Your task to perform on an android device: read, delete, or share a saved page in the chrome app Image 0: 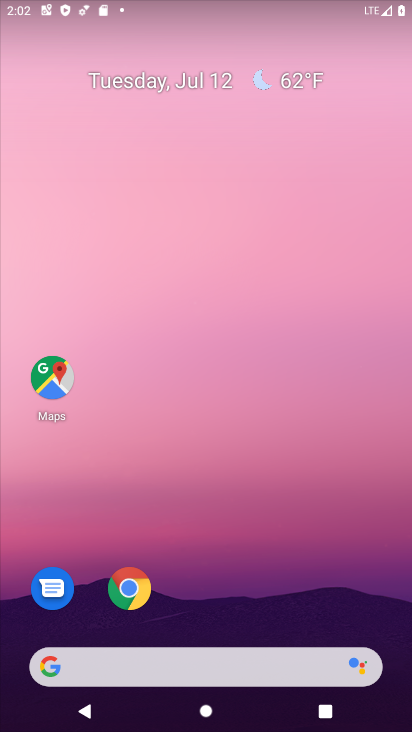
Step 0: click (130, 593)
Your task to perform on an android device: read, delete, or share a saved page in the chrome app Image 1: 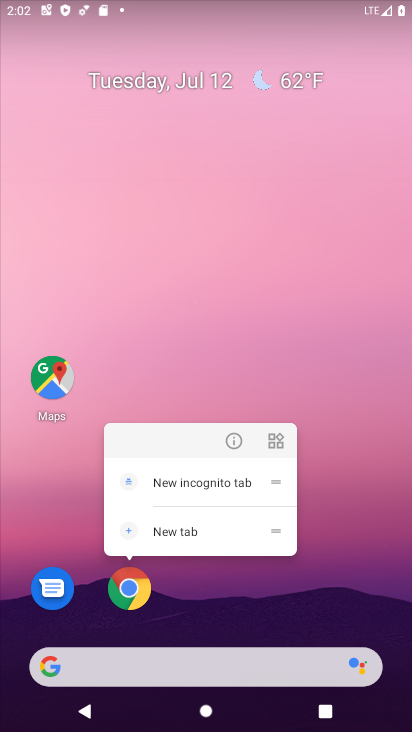
Step 1: click (125, 593)
Your task to perform on an android device: read, delete, or share a saved page in the chrome app Image 2: 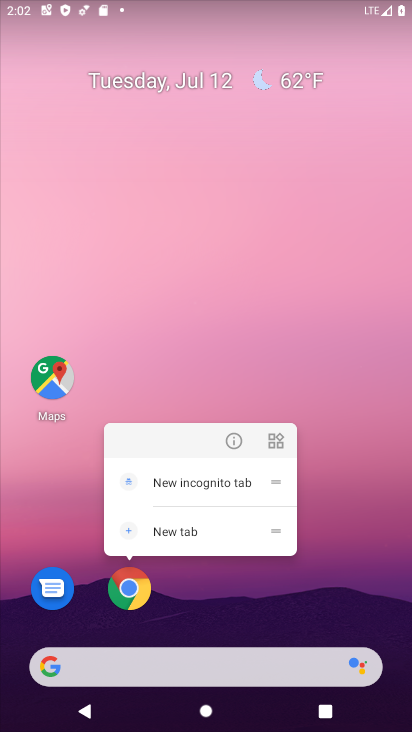
Step 2: click (125, 593)
Your task to perform on an android device: read, delete, or share a saved page in the chrome app Image 3: 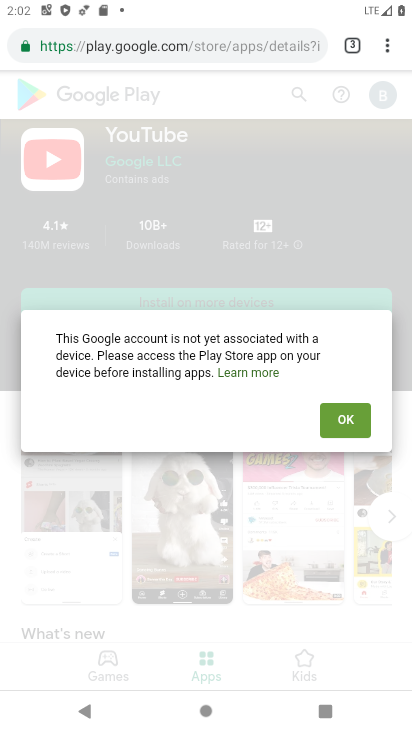
Step 3: press home button
Your task to perform on an android device: read, delete, or share a saved page in the chrome app Image 4: 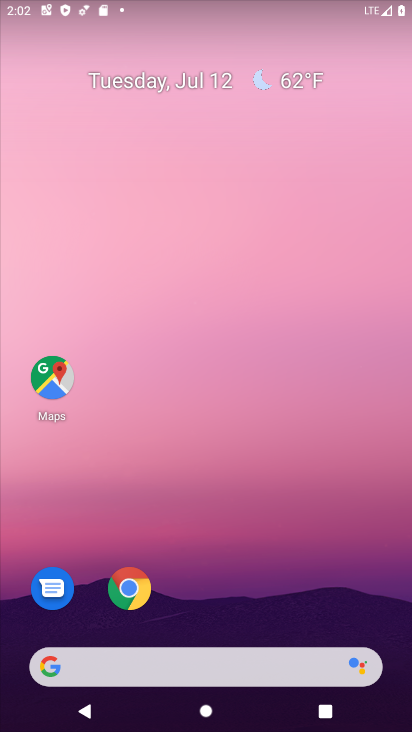
Step 4: click (131, 586)
Your task to perform on an android device: read, delete, or share a saved page in the chrome app Image 5: 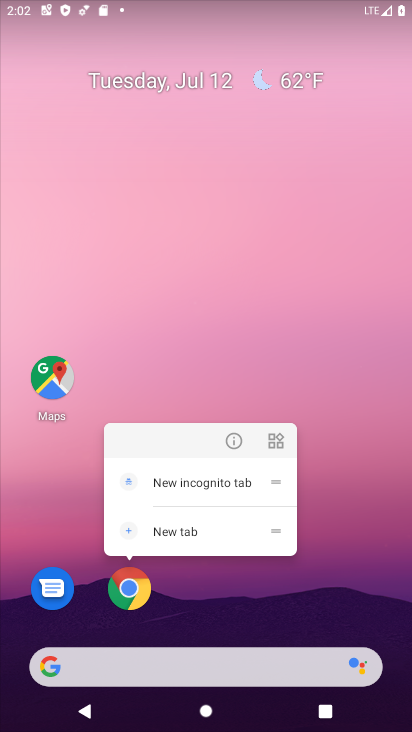
Step 5: click (130, 585)
Your task to perform on an android device: read, delete, or share a saved page in the chrome app Image 6: 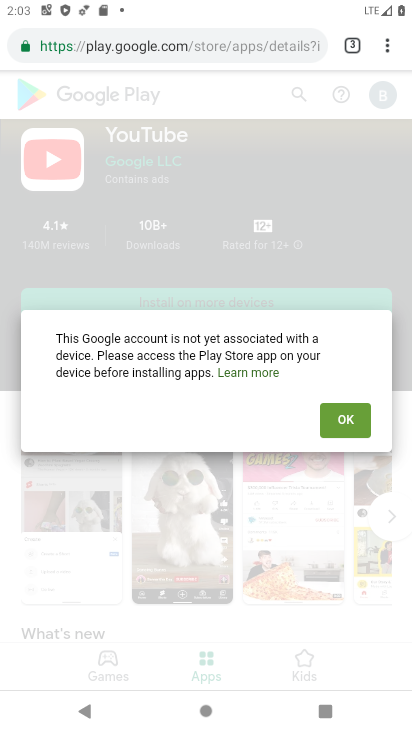
Step 6: click (391, 40)
Your task to perform on an android device: read, delete, or share a saved page in the chrome app Image 7: 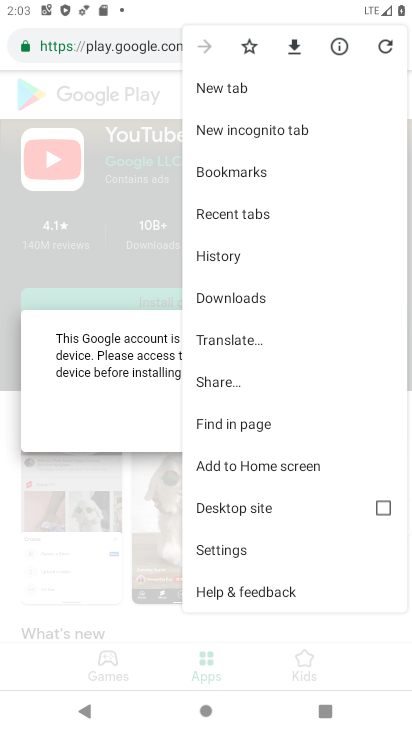
Step 7: click (233, 548)
Your task to perform on an android device: read, delete, or share a saved page in the chrome app Image 8: 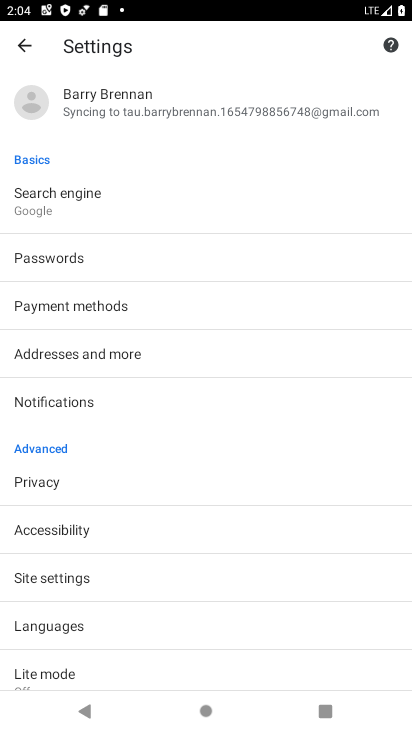
Step 8: drag from (197, 628) to (229, 150)
Your task to perform on an android device: read, delete, or share a saved page in the chrome app Image 9: 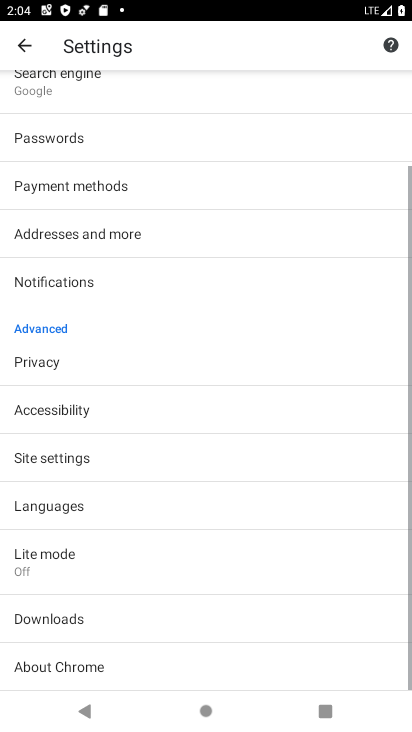
Step 9: click (100, 617)
Your task to perform on an android device: read, delete, or share a saved page in the chrome app Image 10: 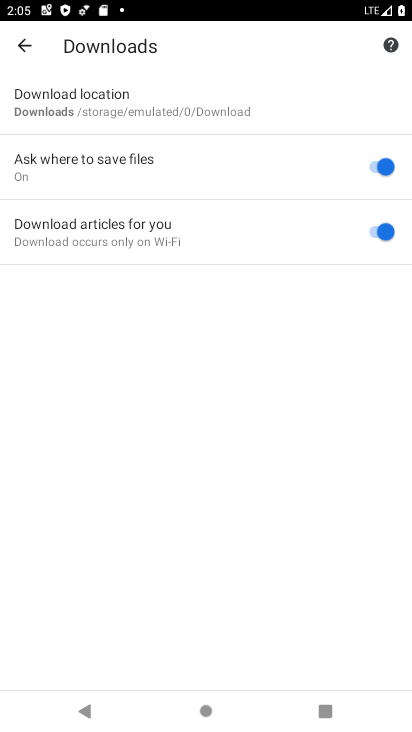
Step 10: task complete